Your task to perform on an android device: turn on notifications settings in the gmail app Image 0: 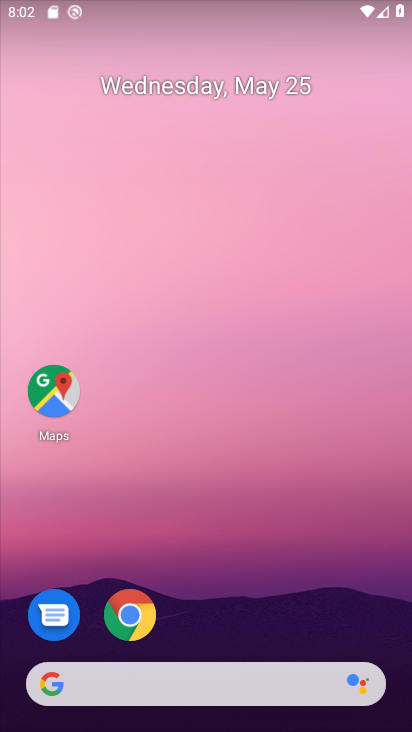
Step 0: drag from (205, 562) to (190, 11)
Your task to perform on an android device: turn on notifications settings in the gmail app Image 1: 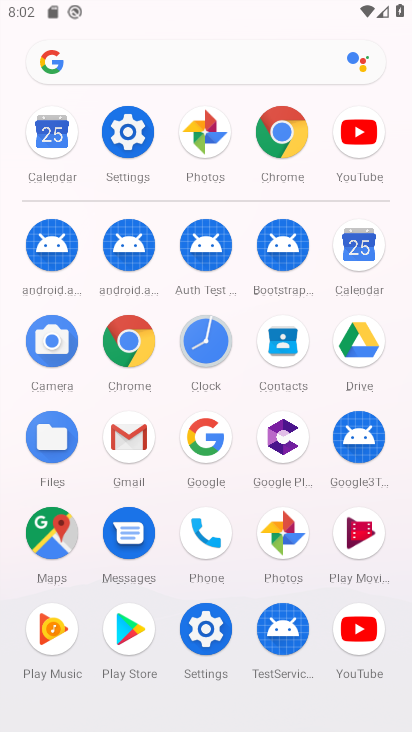
Step 1: drag from (5, 583) to (9, 260)
Your task to perform on an android device: turn on notifications settings in the gmail app Image 2: 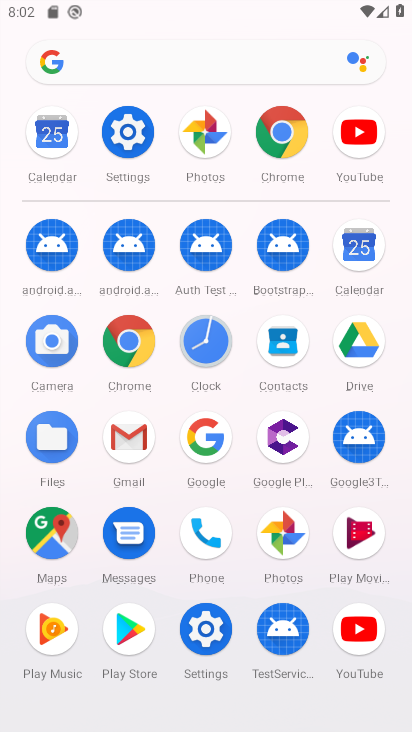
Step 2: click (127, 430)
Your task to perform on an android device: turn on notifications settings in the gmail app Image 3: 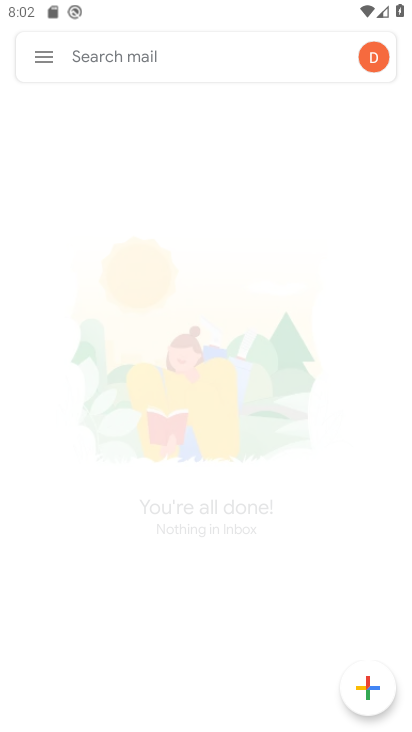
Step 3: click (43, 40)
Your task to perform on an android device: turn on notifications settings in the gmail app Image 4: 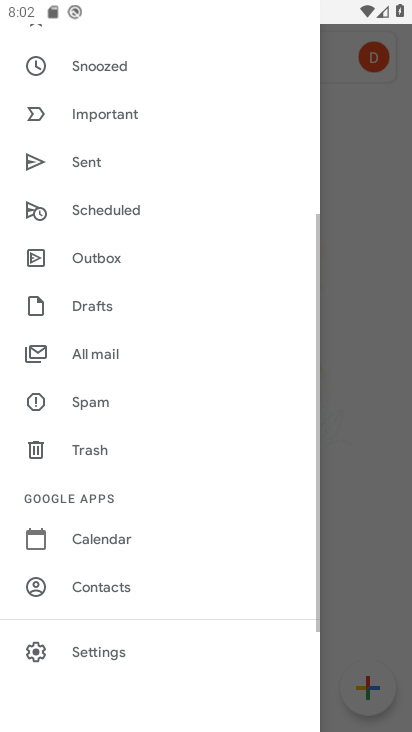
Step 4: click (118, 657)
Your task to perform on an android device: turn on notifications settings in the gmail app Image 5: 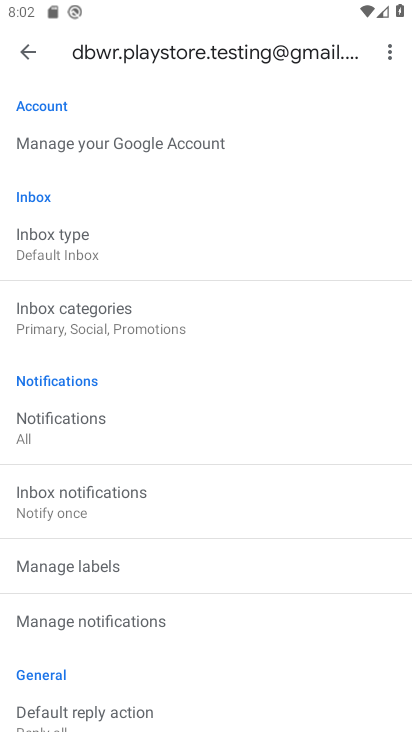
Step 5: click (70, 608)
Your task to perform on an android device: turn on notifications settings in the gmail app Image 6: 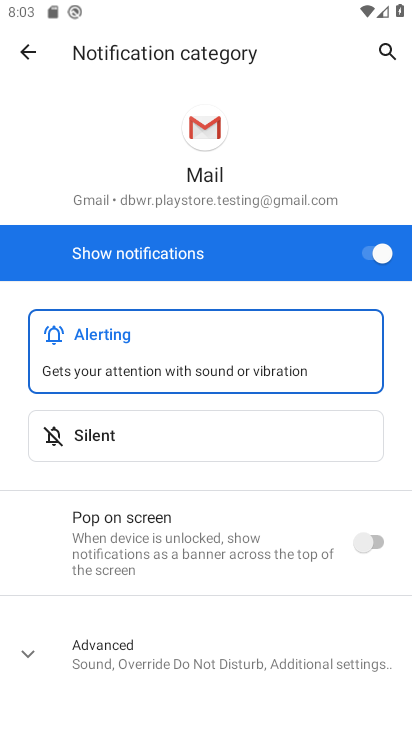
Step 6: click (369, 252)
Your task to perform on an android device: turn on notifications settings in the gmail app Image 7: 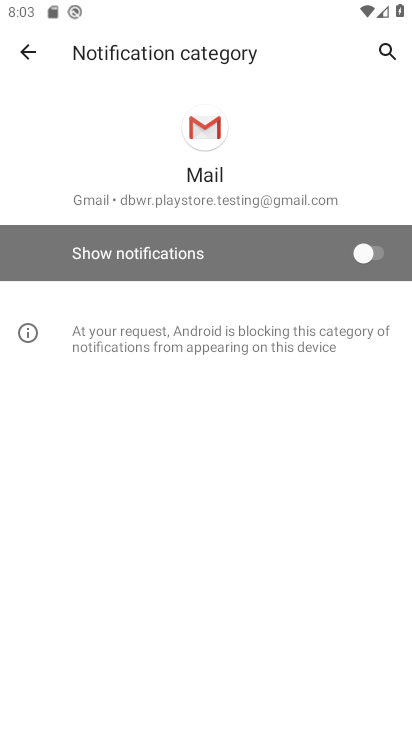
Step 7: task complete